Your task to perform on an android device: Open accessibility settings Image 0: 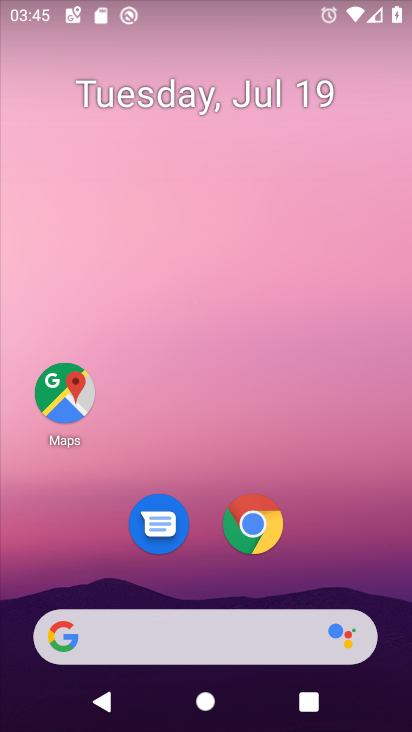
Step 0: drag from (316, 513) to (278, 26)
Your task to perform on an android device: Open accessibility settings Image 1: 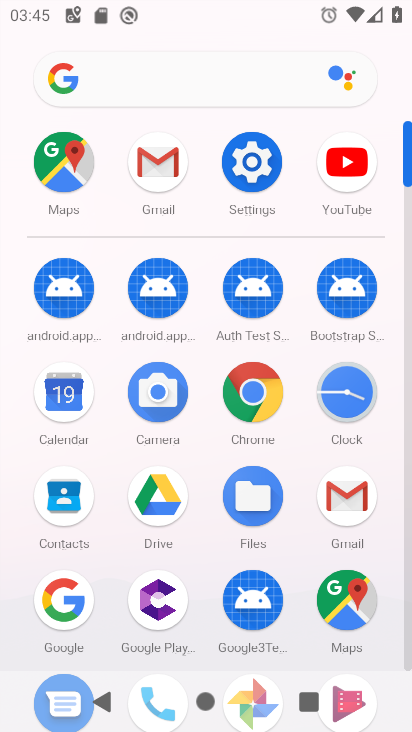
Step 1: click (246, 158)
Your task to perform on an android device: Open accessibility settings Image 2: 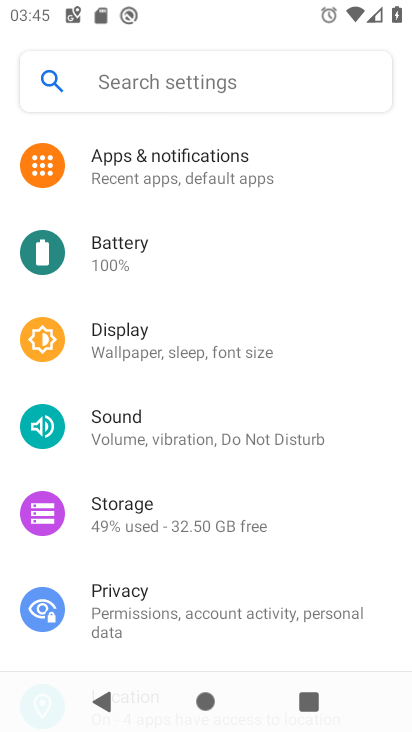
Step 2: drag from (249, 598) to (249, 8)
Your task to perform on an android device: Open accessibility settings Image 3: 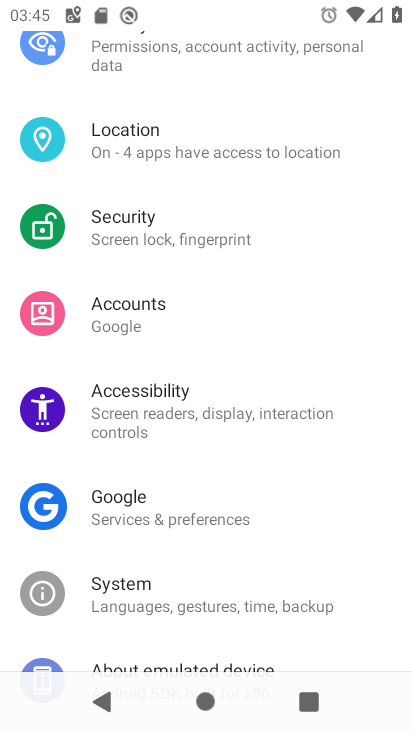
Step 3: click (193, 408)
Your task to perform on an android device: Open accessibility settings Image 4: 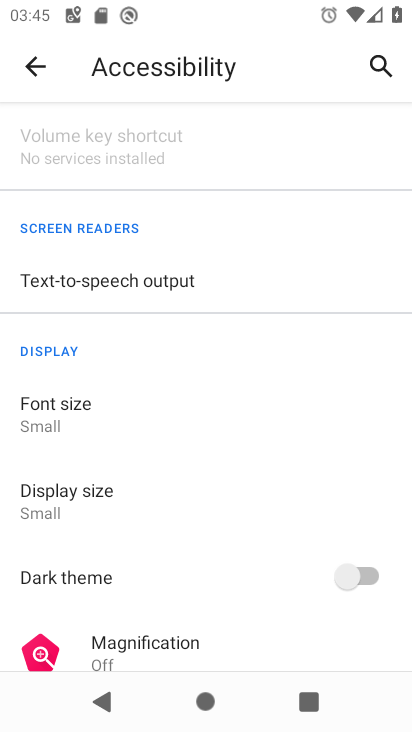
Step 4: task complete